Your task to perform on an android device: Open network settings Image 0: 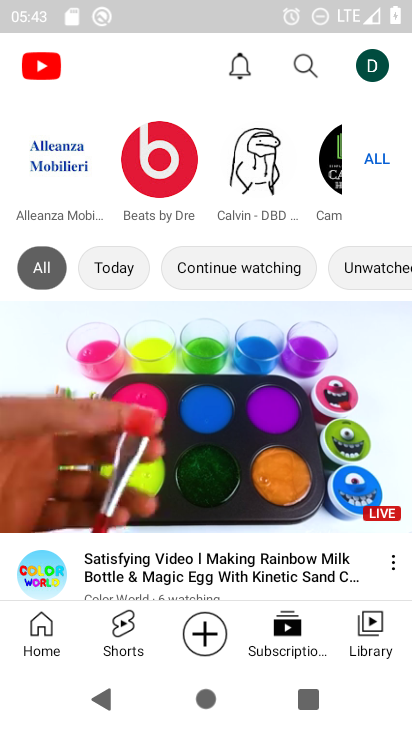
Step 0: press home button
Your task to perform on an android device: Open network settings Image 1: 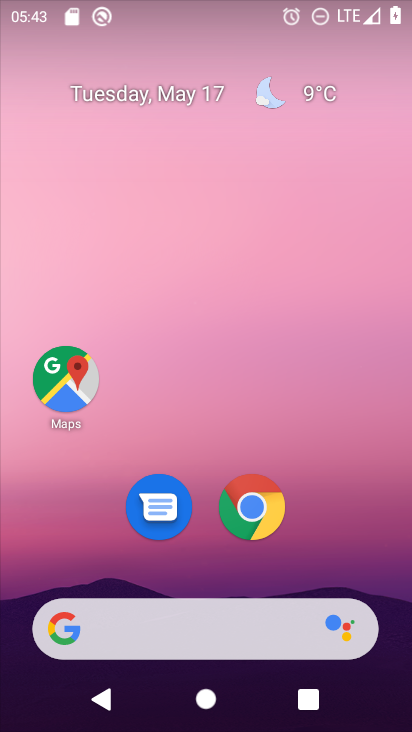
Step 1: drag from (325, 532) to (241, 14)
Your task to perform on an android device: Open network settings Image 2: 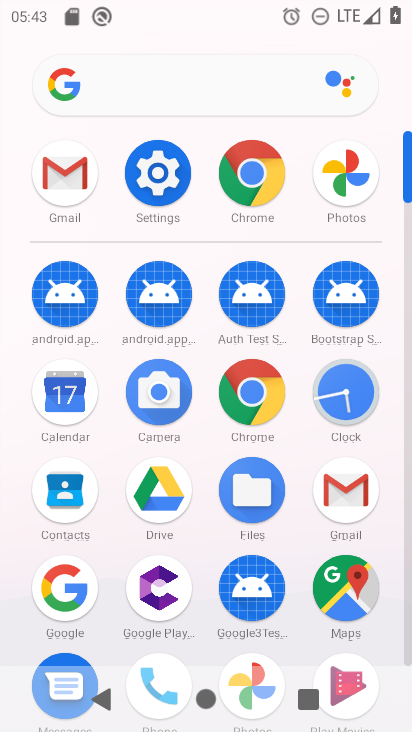
Step 2: click (160, 182)
Your task to perform on an android device: Open network settings Image 3: 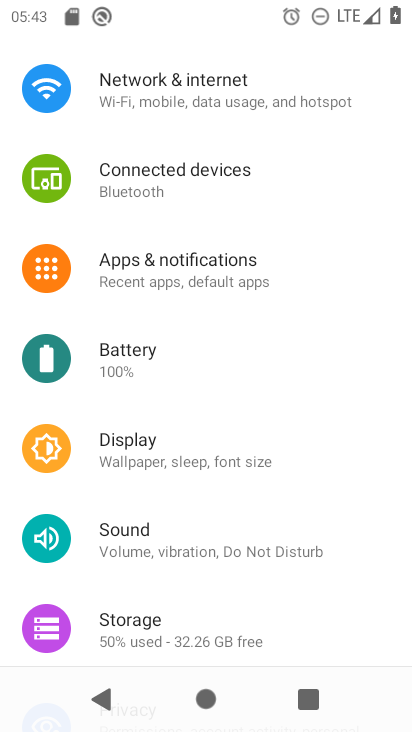
Step 3: click (238, 56)
Your task to perform on an android device: Open network settings Image 4: 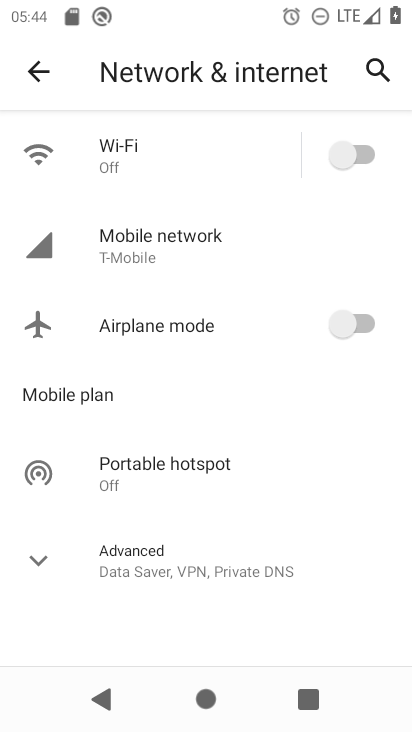
Step 4: task complete